Your task to perform on an android device: What's on my calendar tomorrow? Image 0: 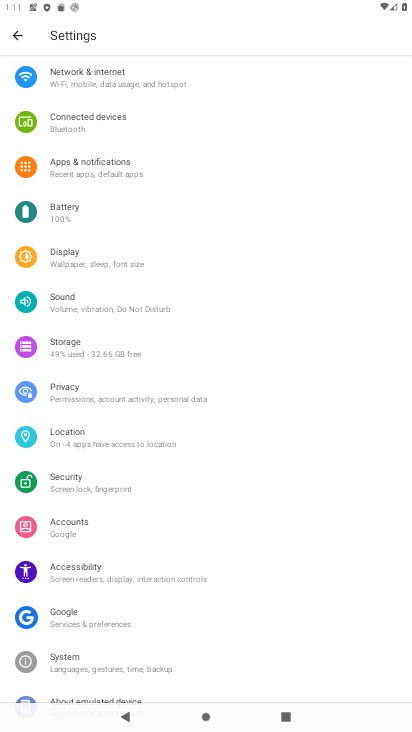
Step 0: press home button
Your task to perform on an android device: What's on my calendar tomorrow? Image 1: 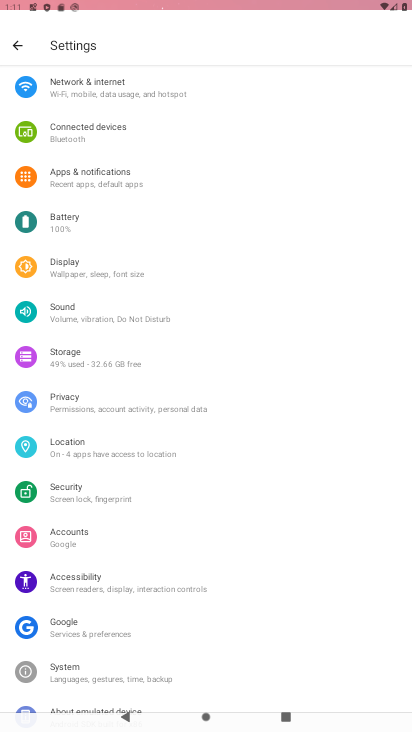
Step 1: drag from (172, 639) to (215, 295)
Your task to perform on an android device: What's on my calendar tomorrow? Image 2: 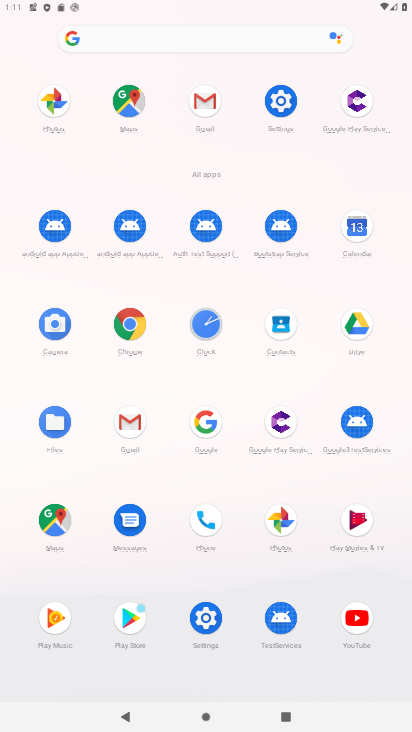
Step 2: click (356, 218)
Your task to perform on an android device: What's on my calendar tomorrow? Image 3: 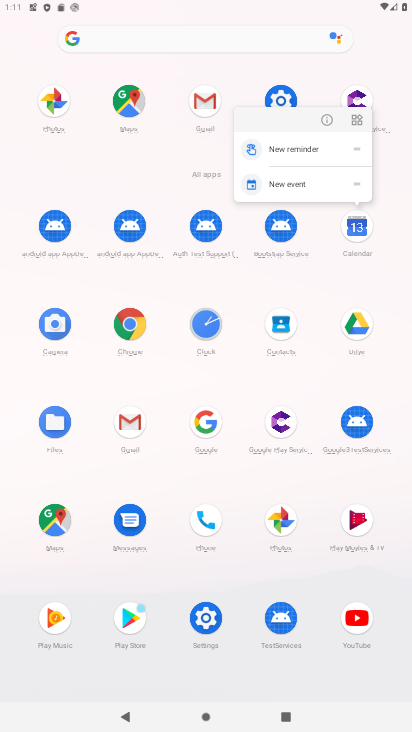
Step 3: click (325, 118)
Your task to perform on an android device: What's on my calendar tomorrow? Image 4: 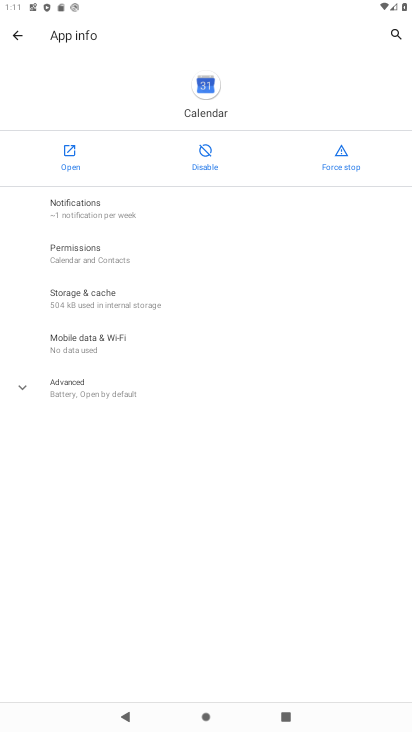
Step 4: click (65, 162)
Your task to perform on an android device: What's on my calendar tomorrow? Image 5: 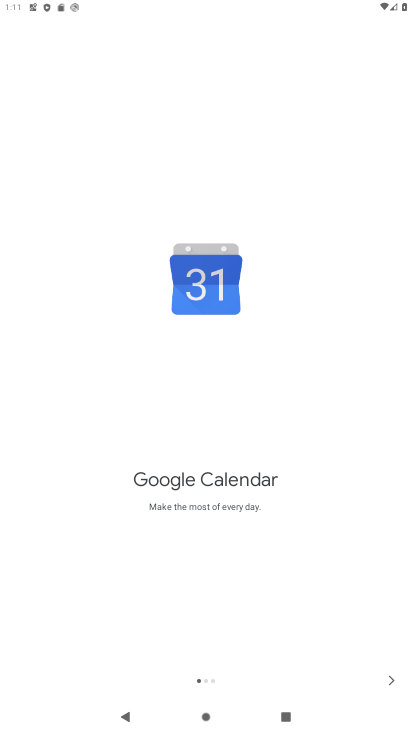
Step 5: drag from (214, 485) to (212, 270)
Your task to perform on an android device: What's on my calendar tomorrow? Image 6: 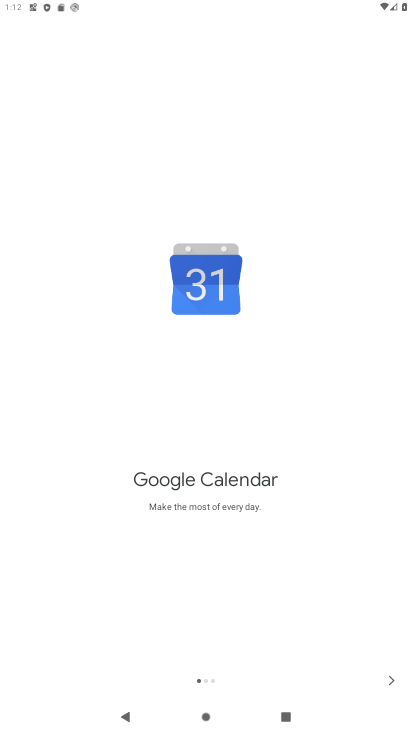
Step 6: drag from (222, 567) to (236, 299)
Your task to perform on an android device: What's on my calendar tomorrow? Image 7: 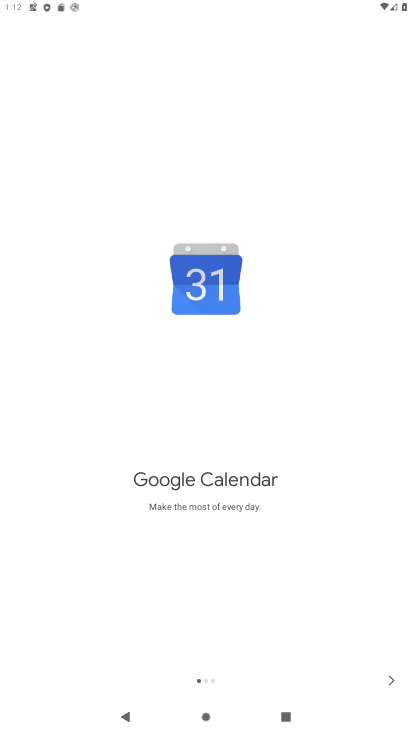
Step 7: drag from (211, 521) to (212, 401)
Your task to perform on an android device: What's on my calendar tomorrow? Image 8: 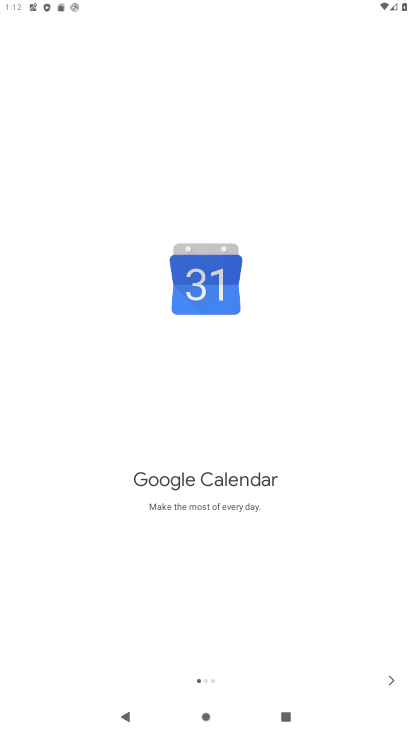
Step 8: click (400, 680)
Your task to perform on an android device: What's on my calendar tomorrow? Image 9: 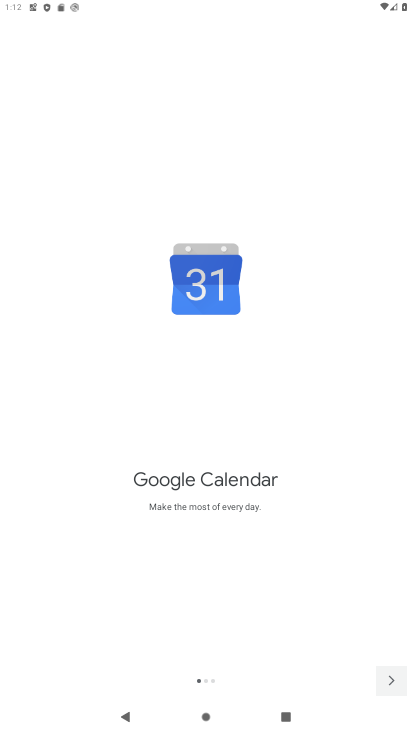
Step 9: click (390, 675)
Your task to perform on an android device: What's on my calendar tomorrow? Image 10: 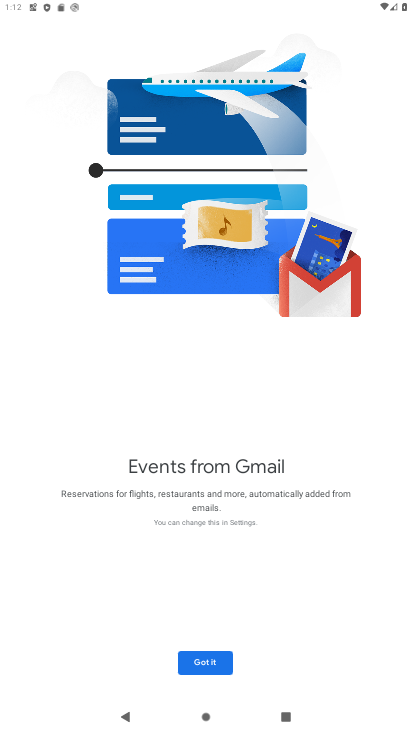
Step 10: click (391, 676)
Your task to perform on an android device: What's on my calendar tomorrow? Image 11: 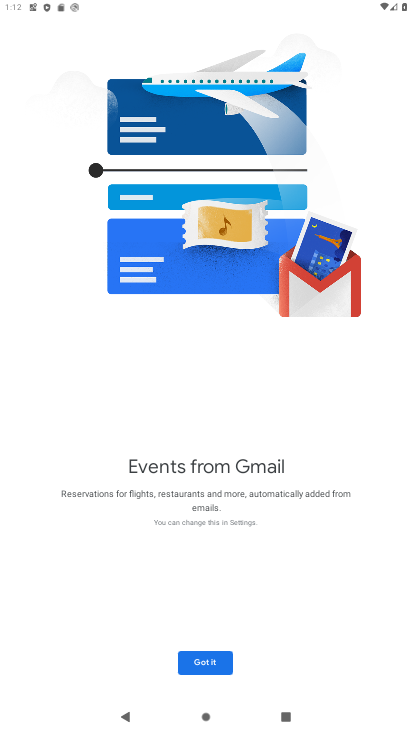
Step 11: click (194, 650)
Your task to perform on an android device: What's on my calendar tomorrow? Image 12: 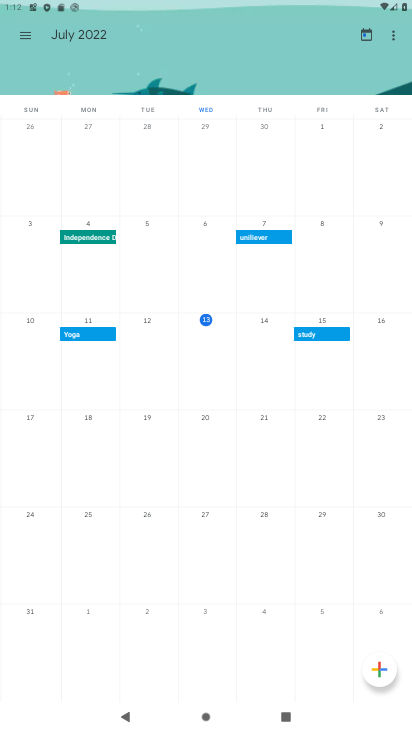
Step 12: drag from (268, 603) to (280, 237)
Your task to perform on an android device: What's on my calendar tomorrow? Image 13: 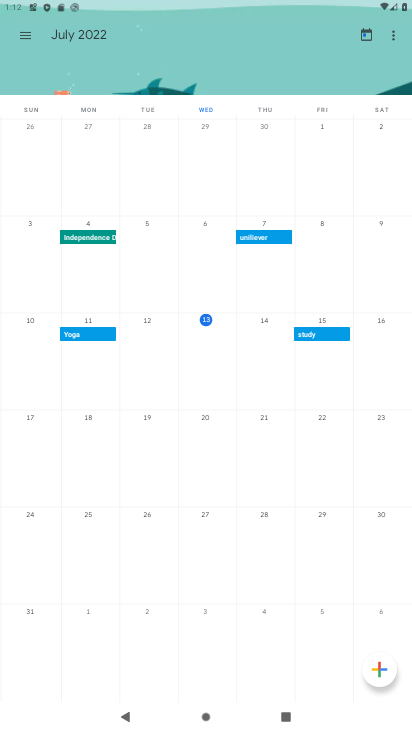
Step 13: click (259, 321)
Your task to perform on an android device: What's on my calendar tomorrow? Image 14: 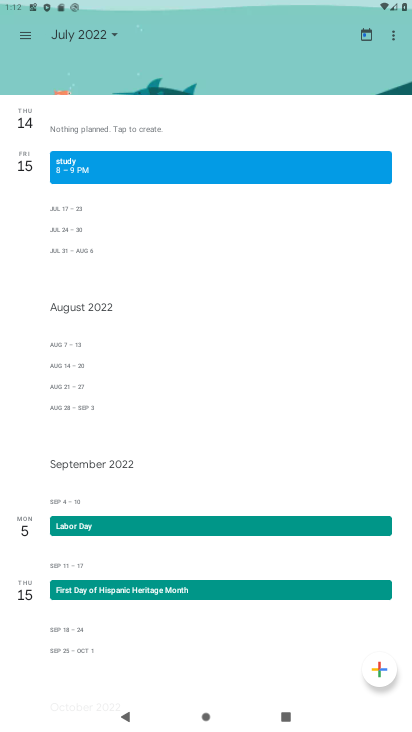
Step 14: drag from (252, 486) to (246, 276)
Your task to perform on an android device: What's on my calendar tomorrow? Image 15: 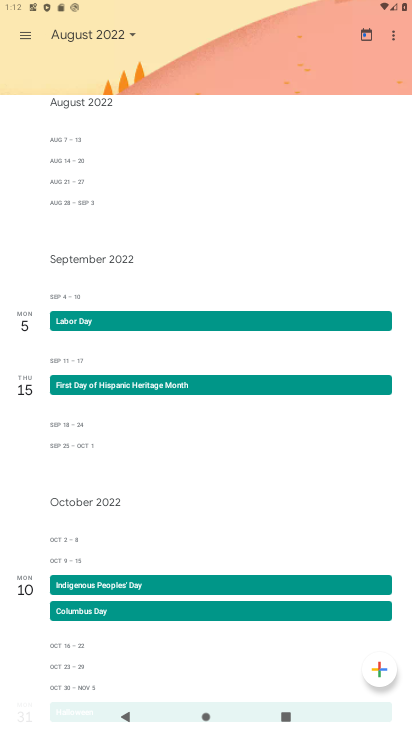
Step 15: click (88, 33)
Your task to perform on an android device: What's on my calendar tomorrow? Image 16: 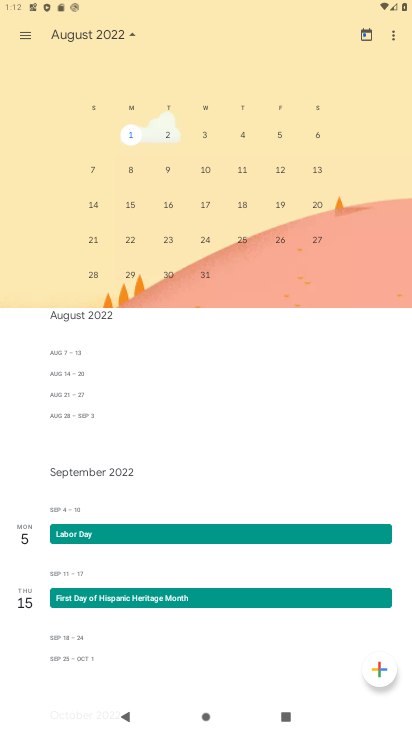
Step 16: click (366, 34)
Your task to perform on an android device: What's on my calendar tomorrow? Image 17: 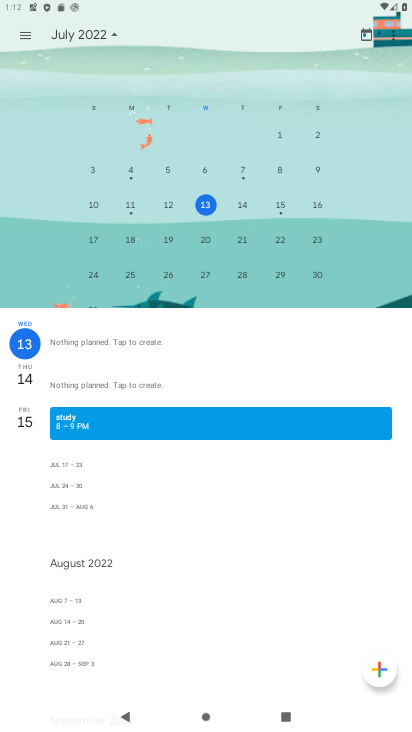
Step 17: task complete